Your task to perform on an android device: Search for vegetarian restaurants on Maps Image 0: 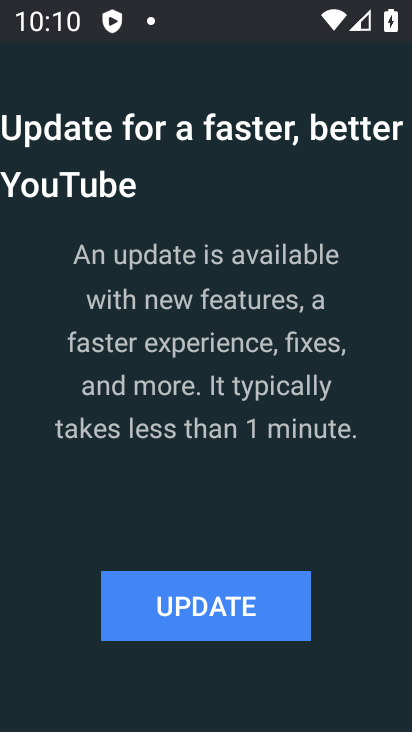
Step 0: press home button
Your task to perform on an android device: Search for vegetarian restaurants on Maps Image 1: 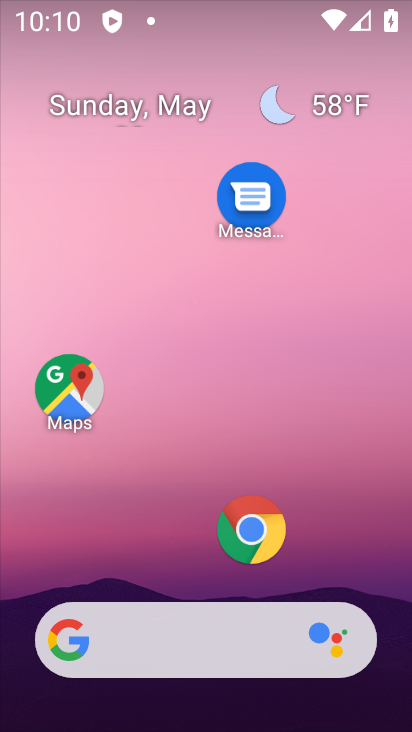
Step 1: click (85, 398)
Your task to perform on an android device: Search for vegetarian restaurants on Maps Image 2: 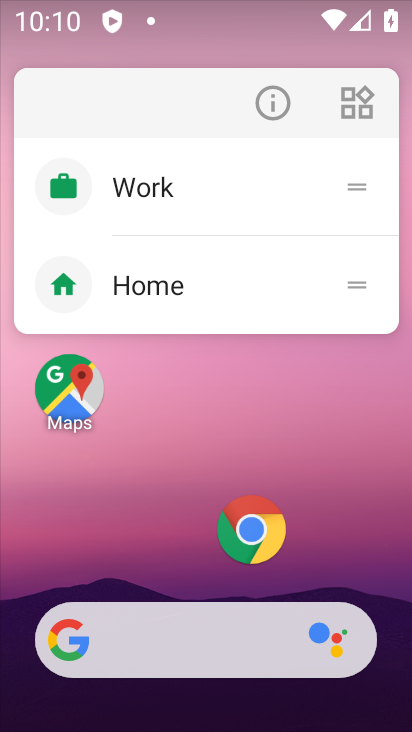
Step 2: click (81, 403)
Your task to perform on an android device: Search for vegetarian restaurants on Maps Image 3: 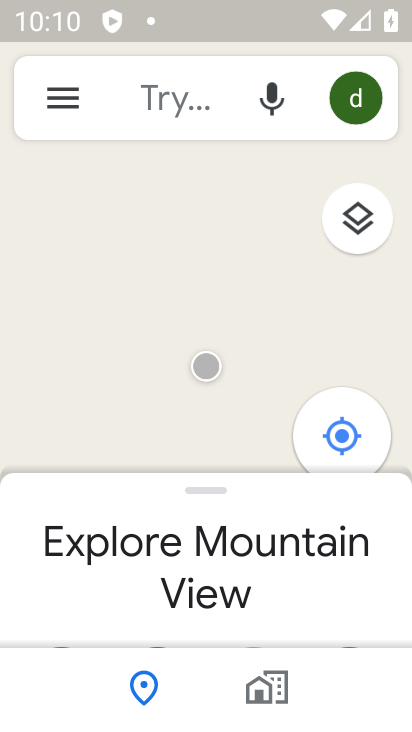
Step 3: click (159, 100)
Your task to perform on an android device: Search for vegetarian restaurants on Maps Image 4: 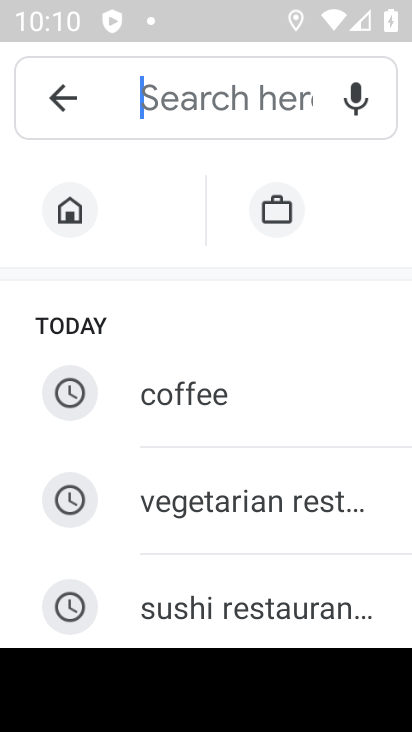
Step 4: type "Vegetarian restaurants"
Your task to perform on an android device: Search for vegetarian restaurants on Maps Image 5: 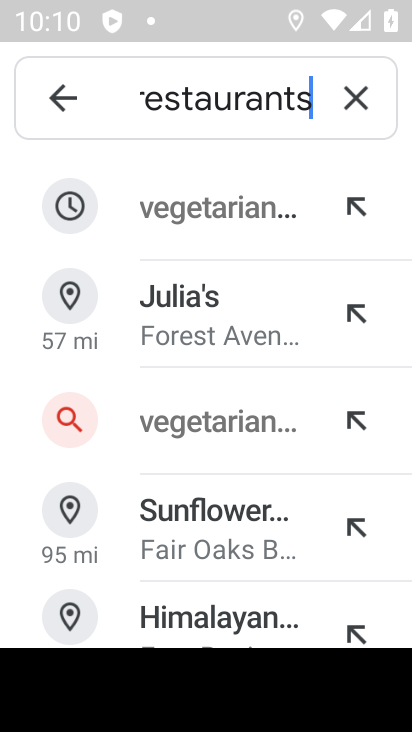
Step 5: click (209, 236)
Your task to perform on an android device: Search for vegetarian restaurants on Maps Image 6: 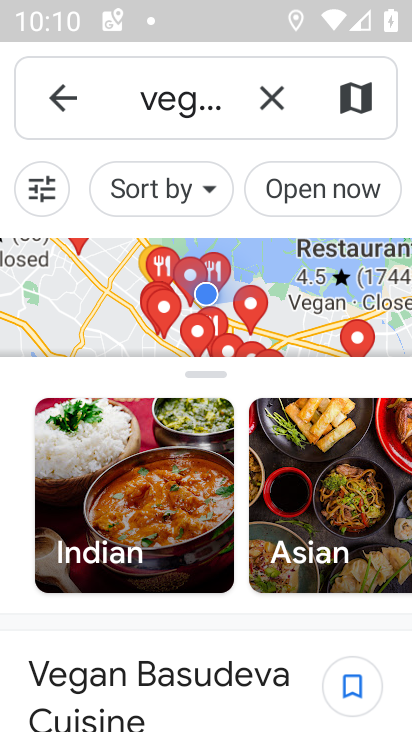
Step 6: task complete